Your task to perform on an android device: open the mobile data screen to see how much data has been used Image 0: 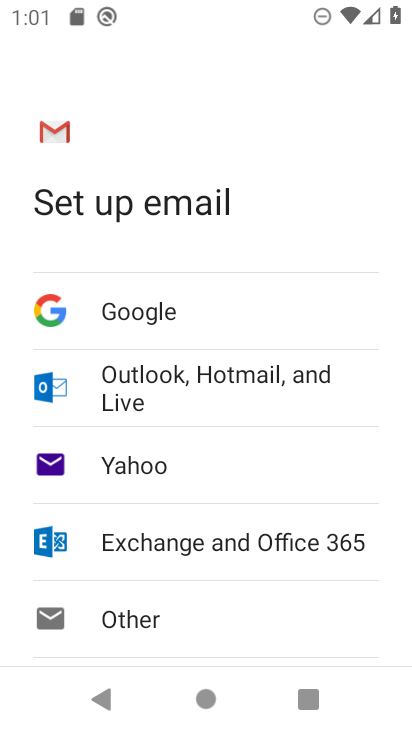
Step 0: press home button
Your task to perform on an android device: open the mobile data screen to see how much data has been used Image 1: 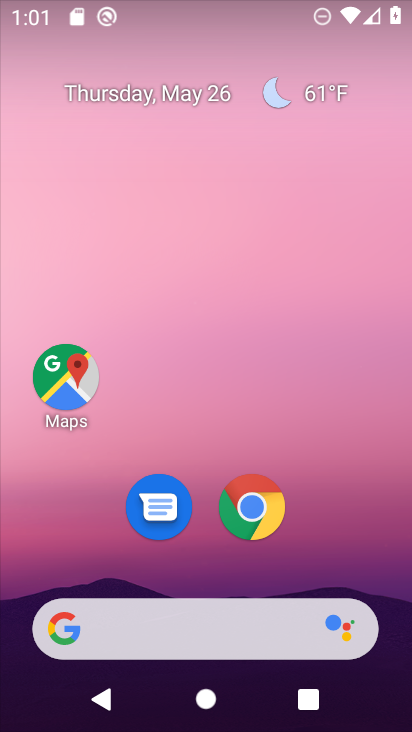
Step 1: drag from (337, 523) to (333, 34)
Your task to perform on an android device: open the mobile data screen to see how much data has been used Image 2: 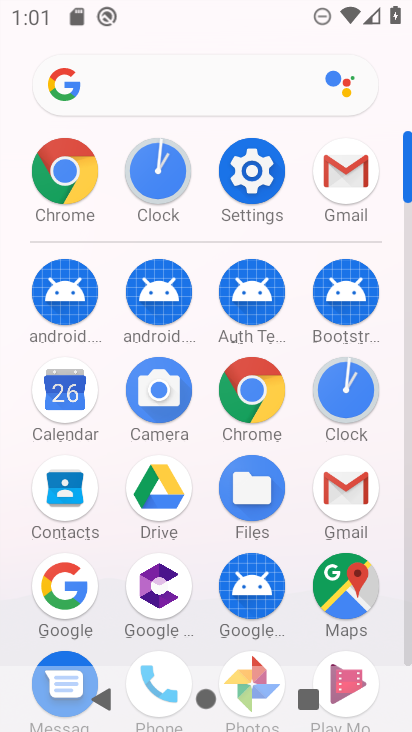
Step 2: click (263, 148)
Your task to perform on an android device: open the mobile data screen to see how much data has been used Image 3: 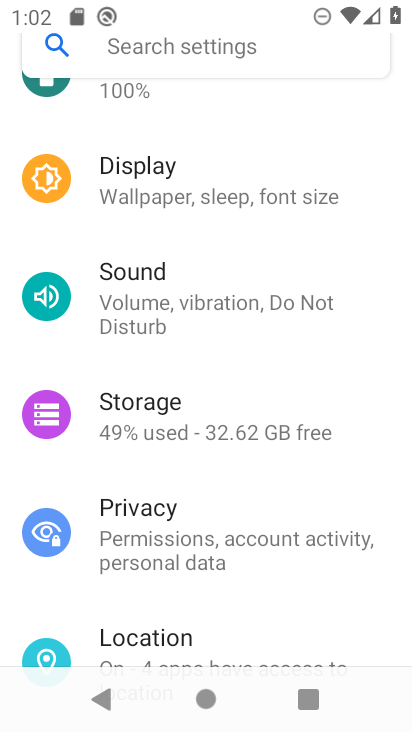
Step 3: drag from (115, 155) to (28, 602)
Your task to perform on an android device: open the mobile data screen to see how much data has been used Image 4: 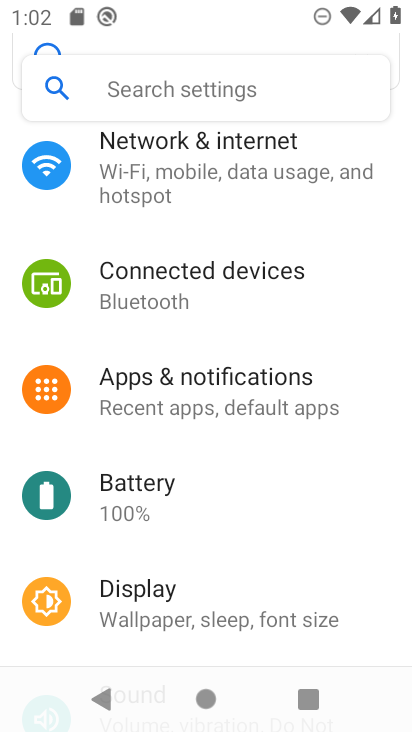
Step 4: click (154, 164)
Your task to perform on an android device: open the mobile data screen to see how much data has been used Image 5: 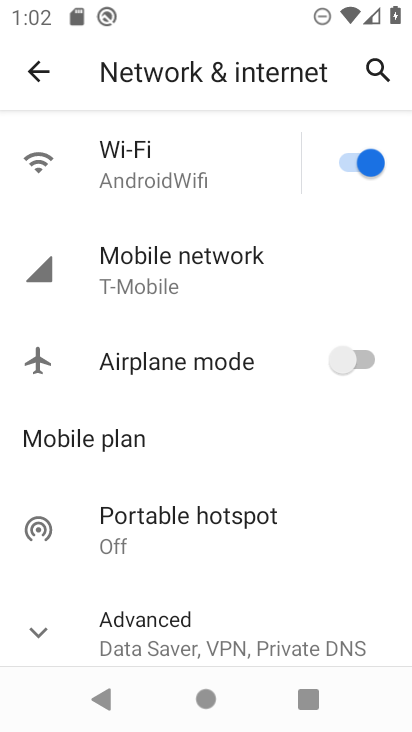
Step 5: click (145, 194)
Your task to perform on an android device: open the mobile data screen to see how much data has been used Image 6: 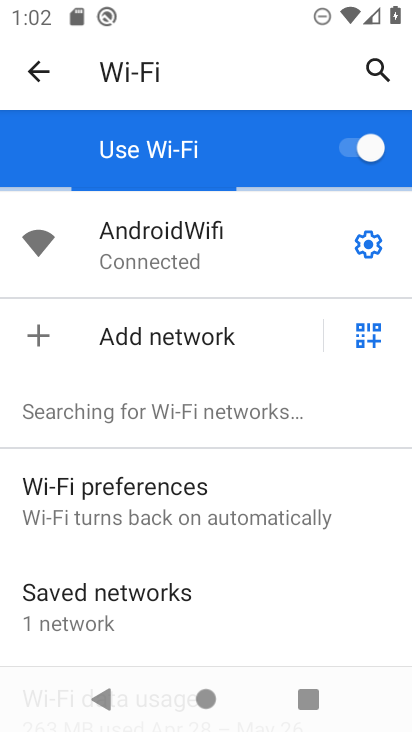
Step 6: task complete